Your task to perform on an android device: What is the recent news? Image 0: 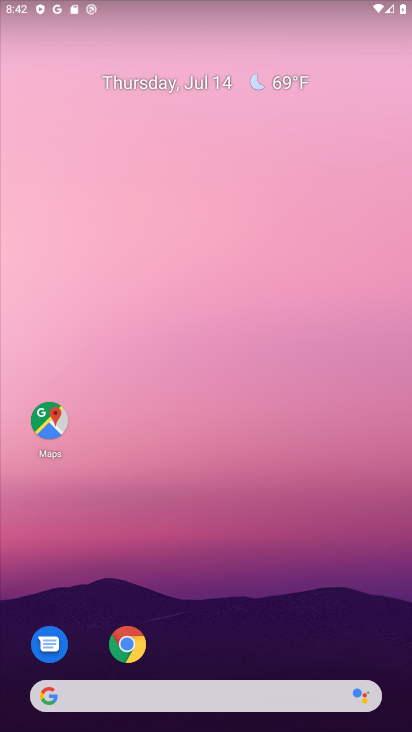
Step 0: click (292, 94)
Your task to perform on an android device: What is the recent news? Image 1: 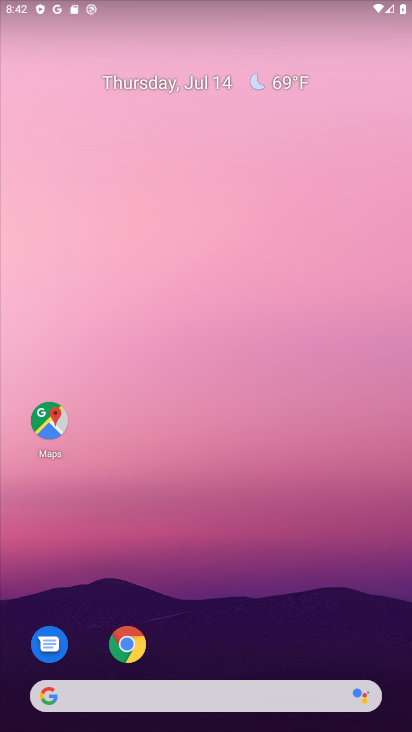
Step 1: click (243, 697)
Your task to perform on an android device: What is the recent news? Image 2: 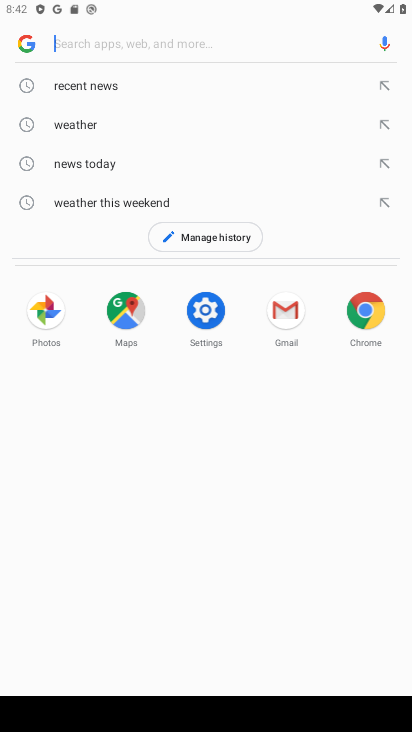
Step 2: click (90, 123)
Your task to perform on an android device: What is the recent news? Image 3: 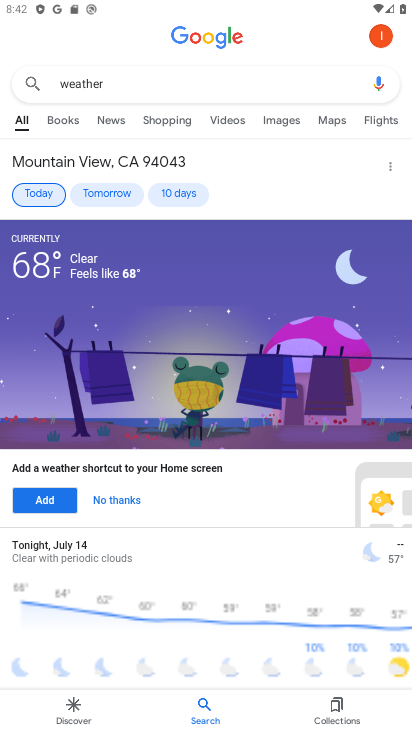
Step 3: task complete